Your task to perform on an android device: toggle wifi Image 0: 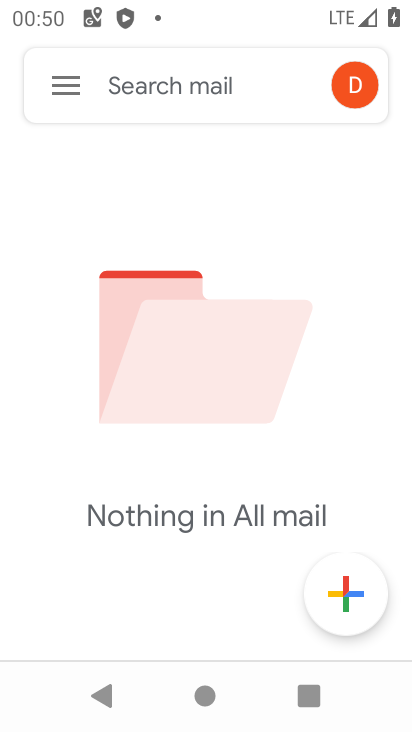
Step 0: press home button
Your task to perform on an android device: toggle wifi Image 1: 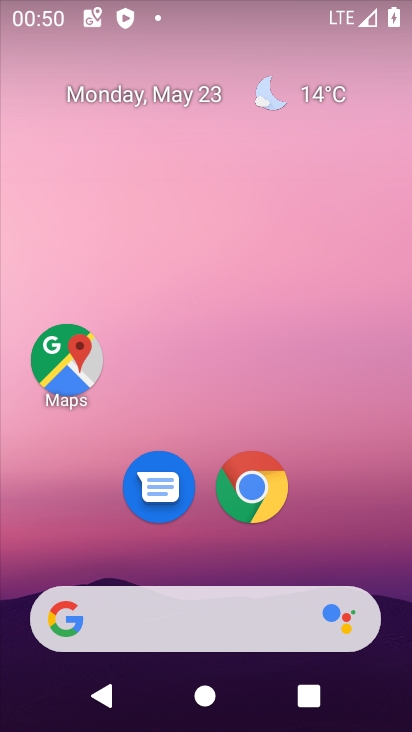
Step 1: drag from (406, 622) to (316, 51)
Your task to perform on an android device: toggle wifi Image 2: 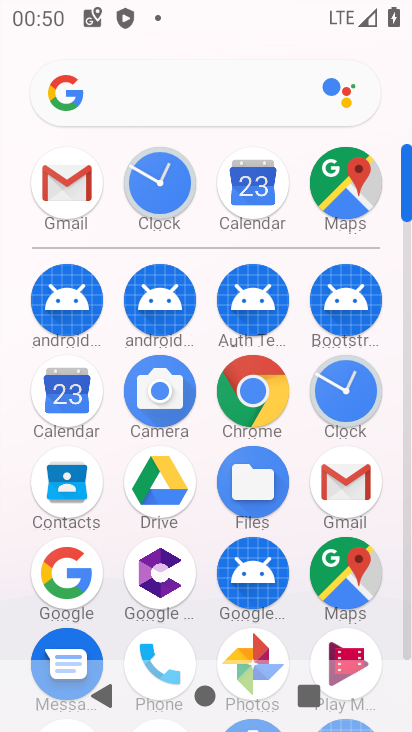
Step 2: click (406, 643)
Your task to perform on an android device: toggle wifi Image 3: 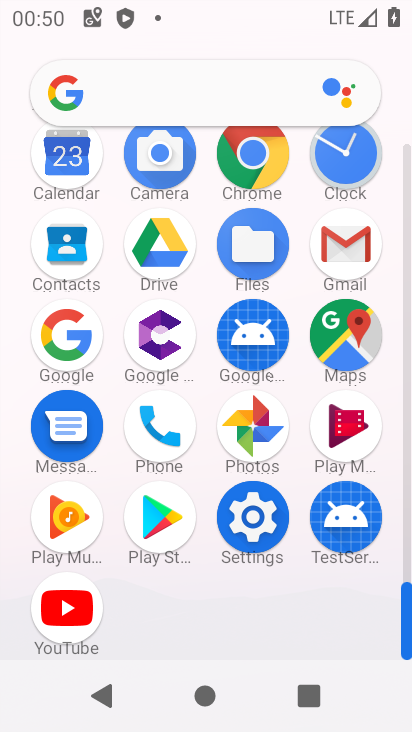
Step 3: click (253, 512)
Your task to perform on an android device: toggle wifi Image 4: 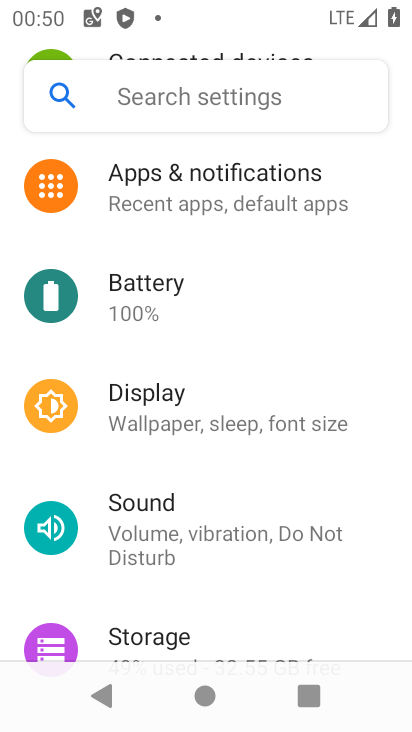
Step 4: drag from (343, 158) to (273, 625)
Your task to perform on an android device: toggle wifi Image 5: 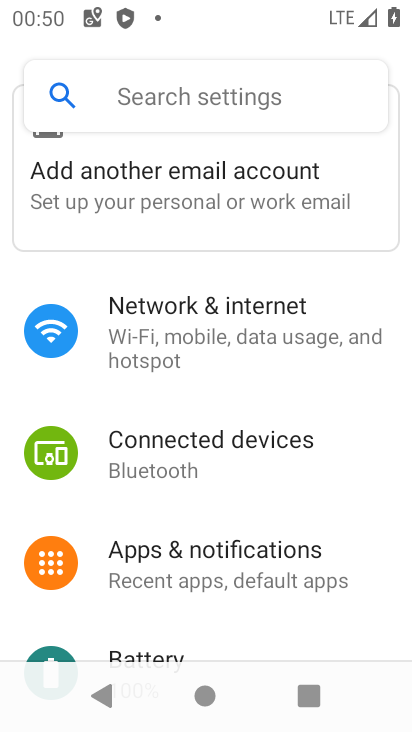
Step 5: click (153, 319)
Your task to perform on an android device: toggle wifi Image 6: 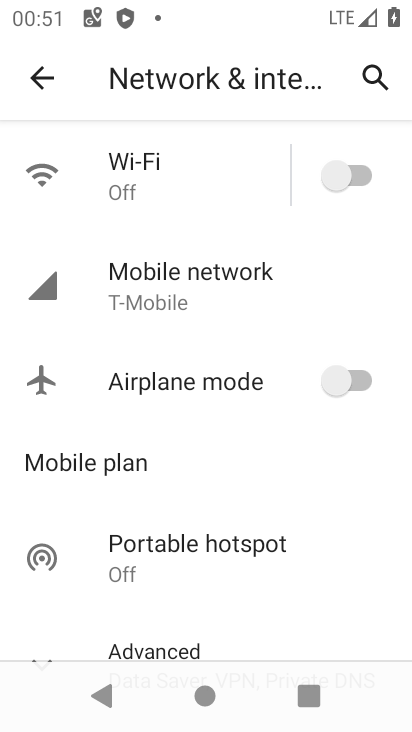
Step 6: task complete